Your task to perform on an android device: Go to CNN.com Image 0: 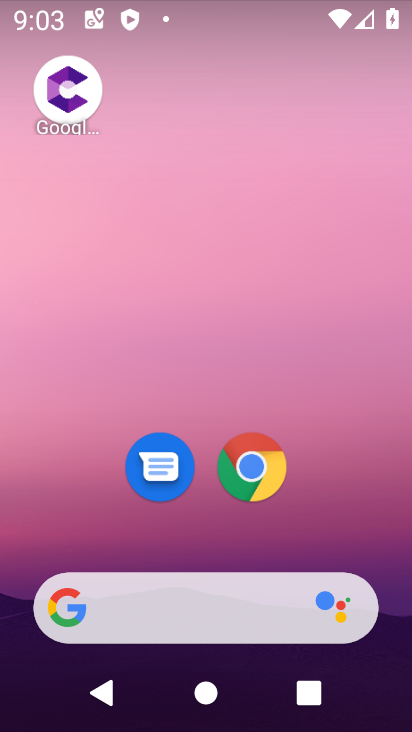
Step 0: click (261, 477)
Your task to perform on an android device: Go to CNN.com Image 1: 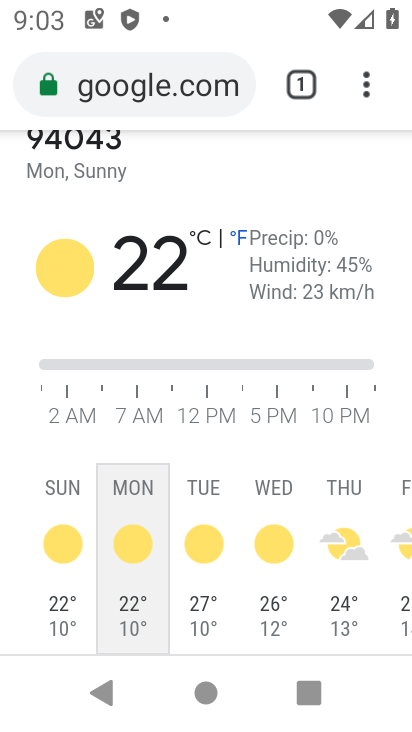
Step 1: click (173, 93)
Your task to perform on an android device: Go to CNN.com Image 2: 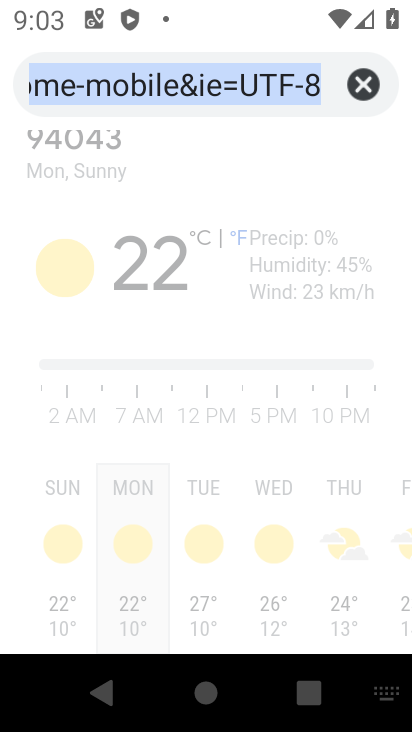
Step 2: type "cnn.com"
Your task to perform on an android device: Go to CNN.com Image 3: 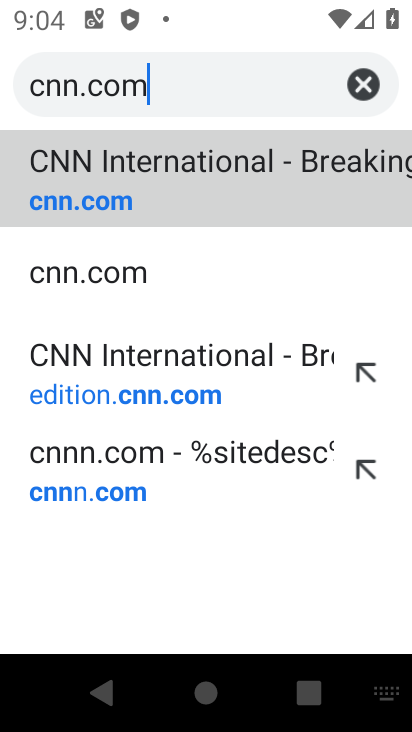
Step 3: click (99, 206)
Your task to perform on an android device: Go to CNN.com Image 4: 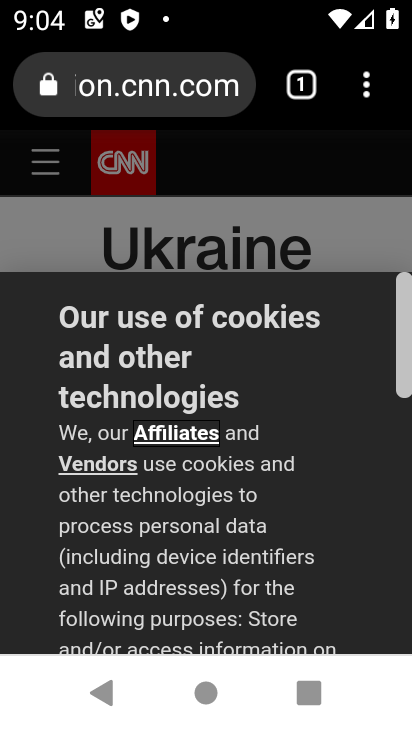
Step 4: task complete